Your task to perform on an android device: check battery use Image 0: 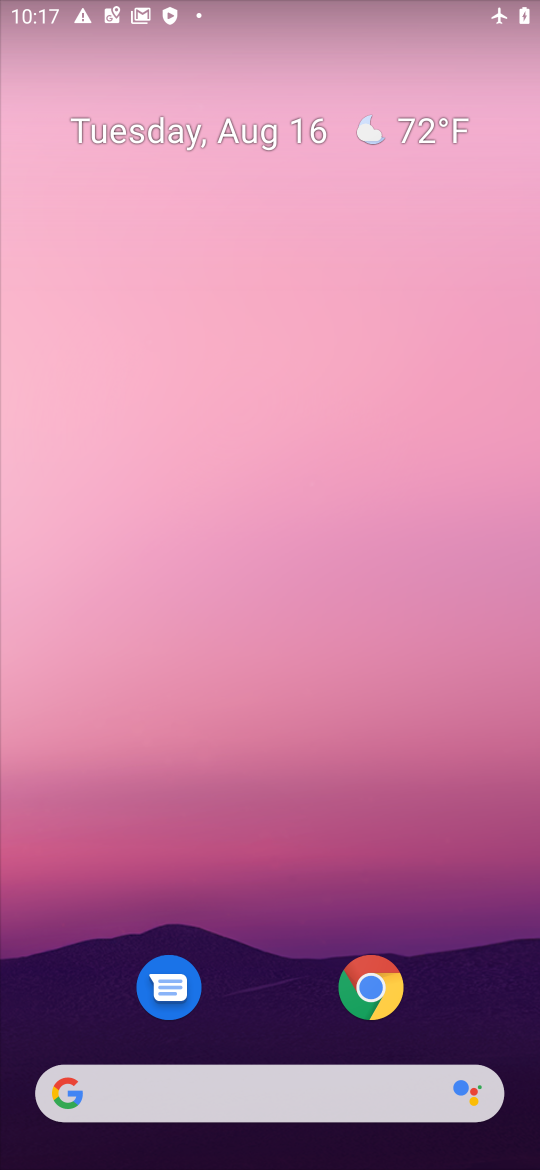
Step 0: drag from (22, 1146) to (292, 507)
Your task to perform on an android device: check battery use Image 1: 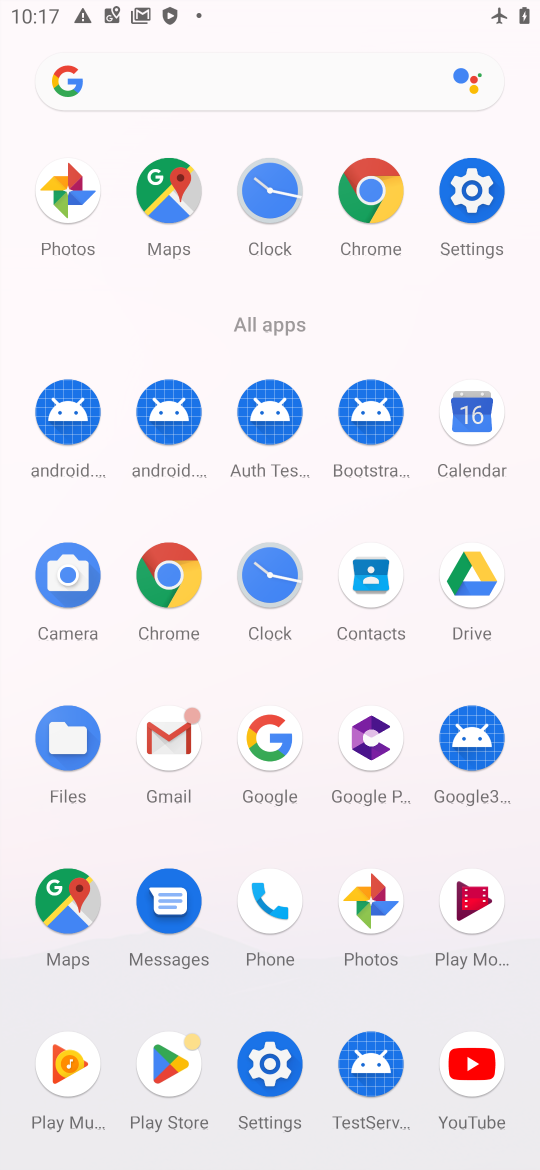
Step 1: click (460, 193)
Your task to perform on an android device: check battery use Image 2: 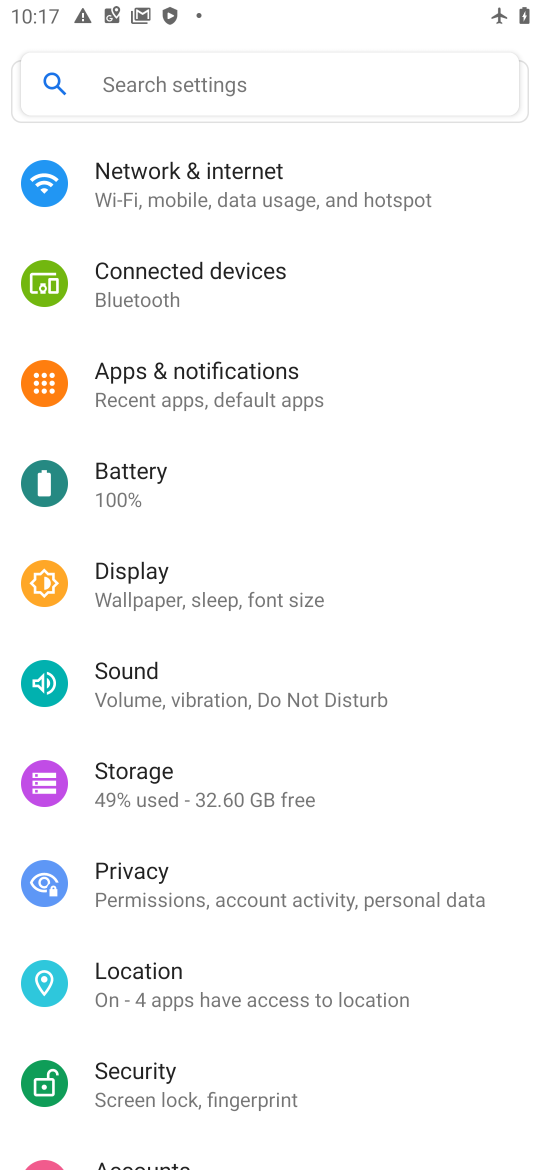
Step 2: click (128, 484)
Your task to perform on an android device: check battery use Image 3: 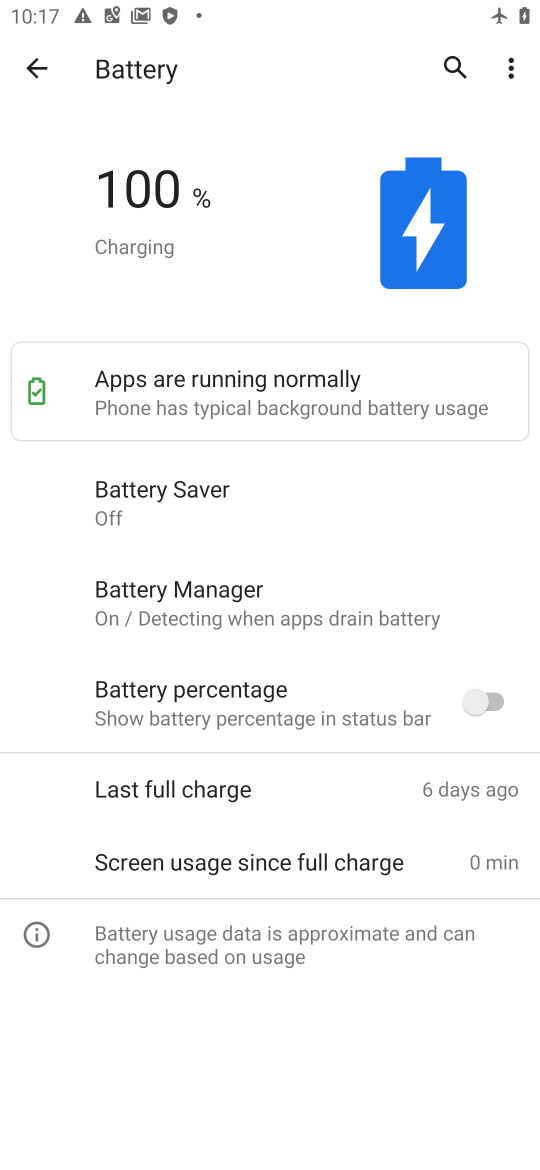
Step 3: task complete